Your task to perform on an android device: open the mobile data screen to see how much data has been used Image 0: 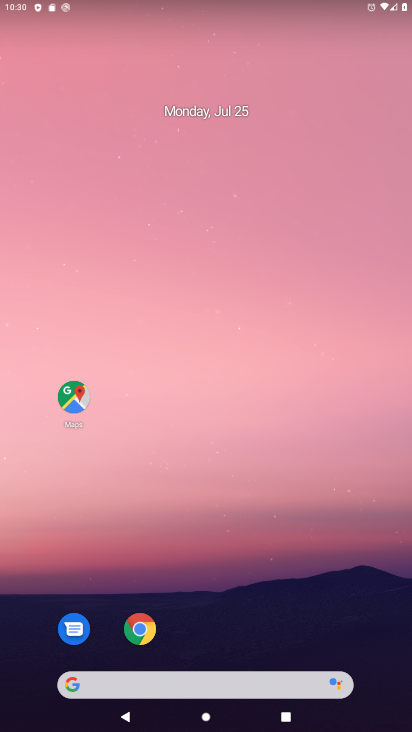
Step 0: drag from (263, 644) to (234, 23)
Your task to perform on an android device: open the mobile data screen to see how much data has been used Image 1: 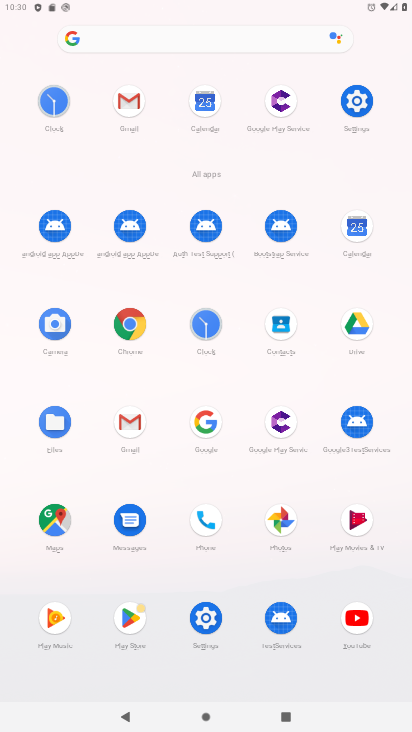
Step 1: click (353, 101)
Your task to perform on an android device: open the mobile data screen to see how much data has been used Image 2: 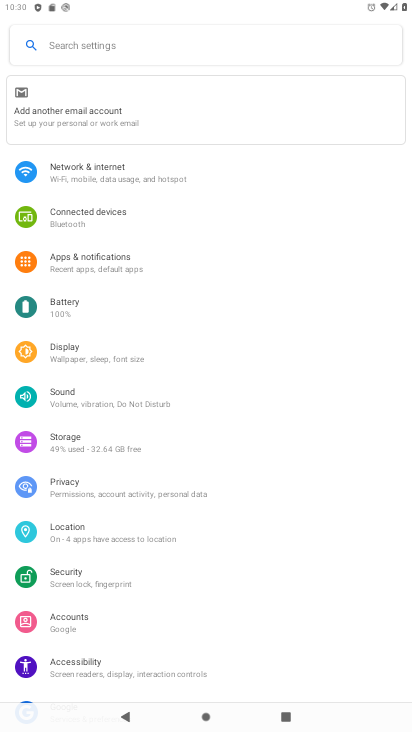
Step 2: click (119, 176)
Your task to perform on an android device: open the mobile data screen to see how much data has been used Image 3: 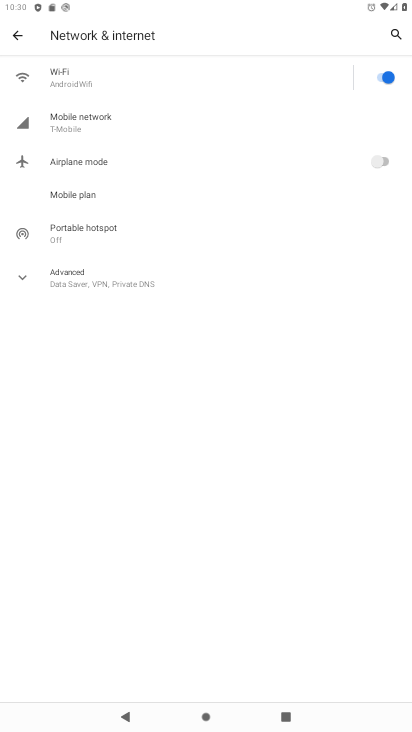
Step 3: click (81, 124)
Your task to perform on an android device: open the mobile data screen to see how much data has been used Image 4: 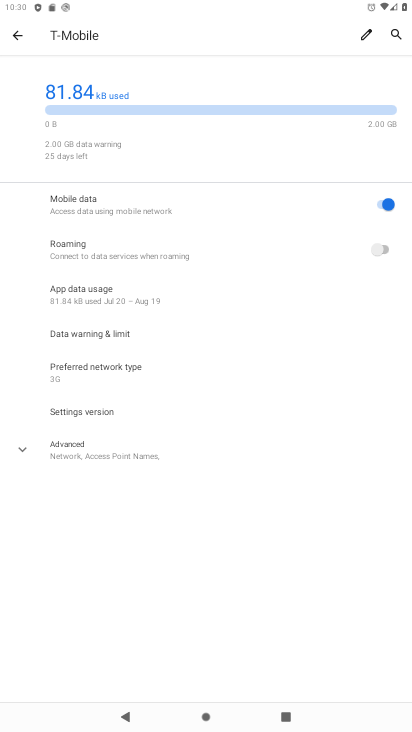
Step 4: click (115, 291)
Your task to perform on an android device: open the mobile data screen to see how much data has been used Image 5: 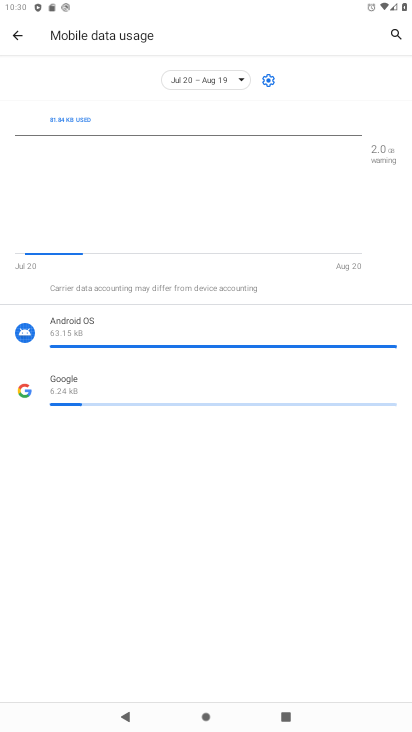
Step 5: task complete